Your task to perform on an android device: Open location settings Image 0: 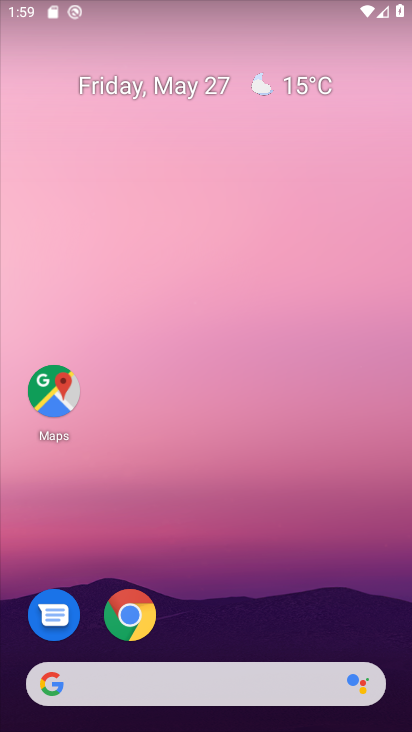
Step 0: drag from (299, 518) to (221, 46)
Your task to perform on an android device: Open location settings Image 1: 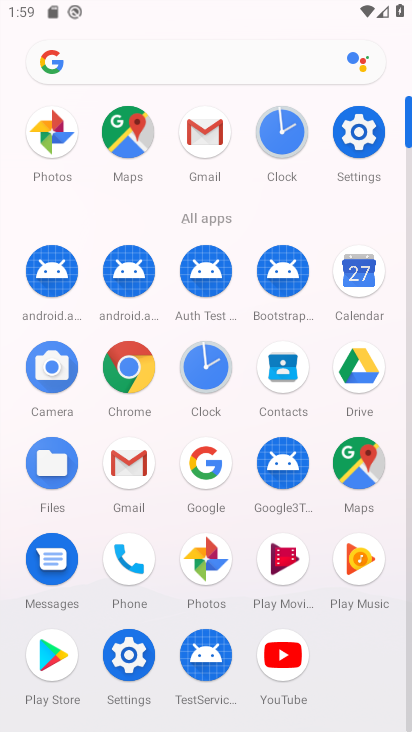
Step 1: click (357, 137)
Your task to perform on an android device: Open location settings Image 2: 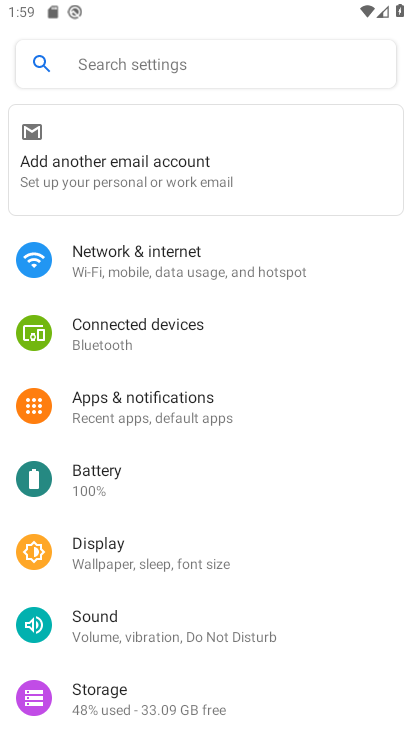
Step 2: drag from (266, 593) to (257, 233)
Your task to perform on an android device: Open location settings Image 3: 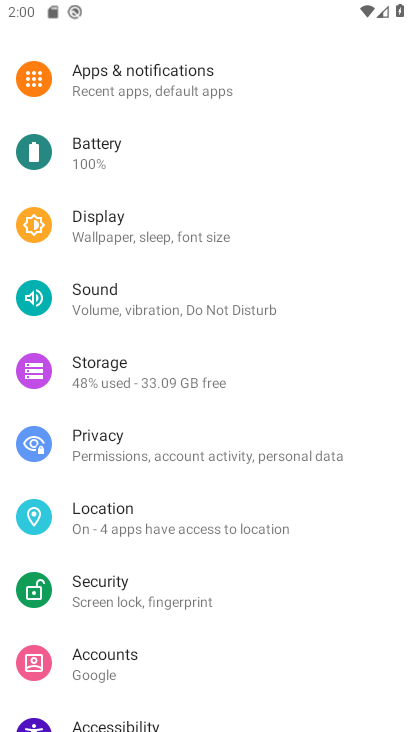
Step 3: click (197, 522)
Your task to perform on an android device: Open location settings Image 4: 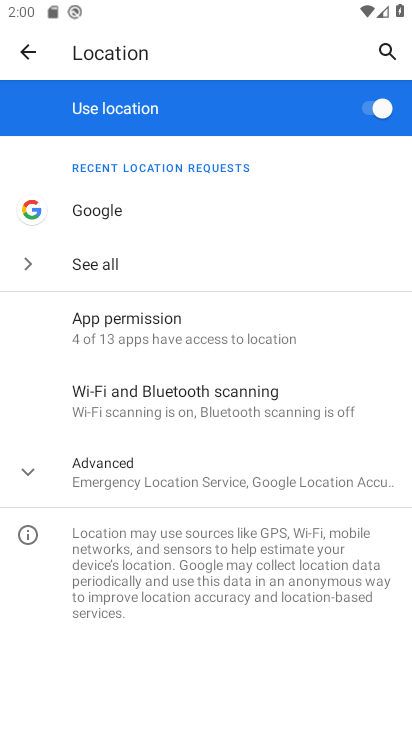
Step 4: task complete